Your task to perform on an android device: Open Chrome and go to the settings page Image 0: 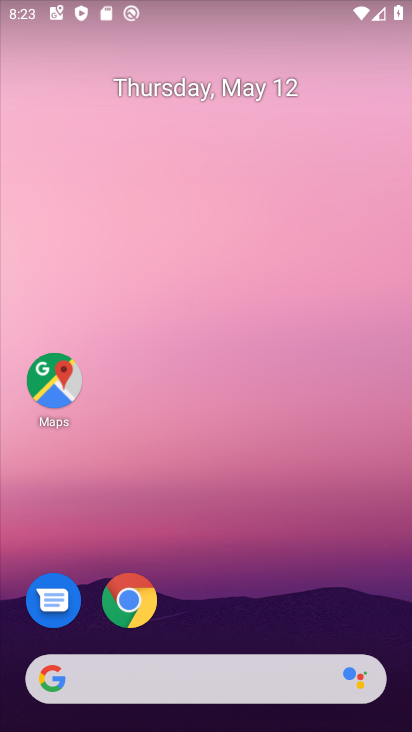
Step 0: click (238, 128)
Your task to perform on an android device: Open Chrome and go to the settings page Image 1: 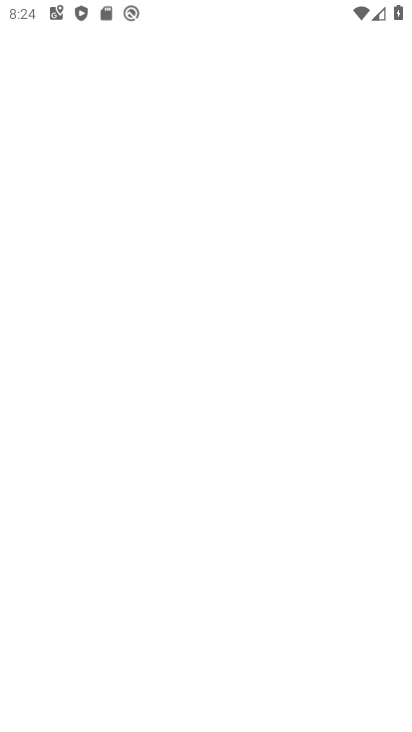
Step 1: press home button
Your task to perform on an android device: Open Chrome and go to the settings page Image 2: 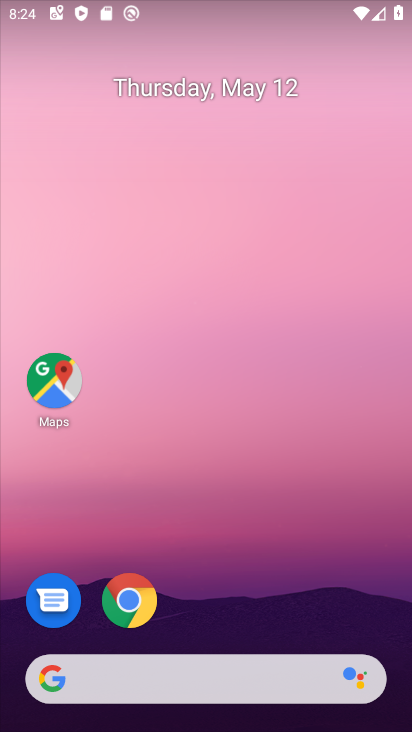
Step 2: drag from (238, 610) to (235, 157)
Your task to perform on an android device: Open Chrome and go to the settings page Image 3: 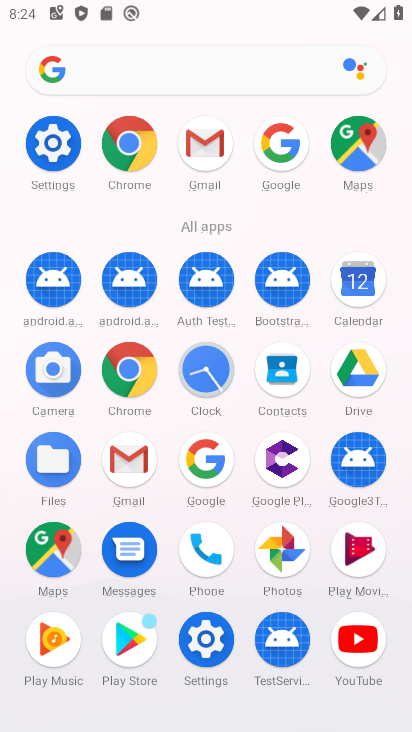
Step 3: click (117, 182)
Your task to perform on an android device: Open Chrome and go to the settings page Image 4: 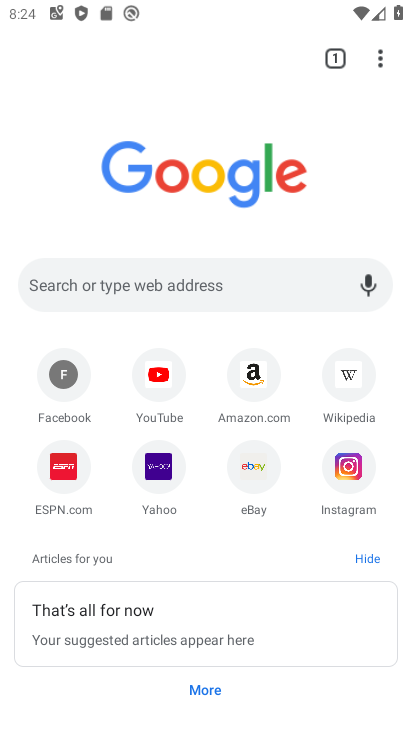
Step 4: click (383, 64)
Your task to perform on an android device: Open Chrome and go to the settings page Image 5: 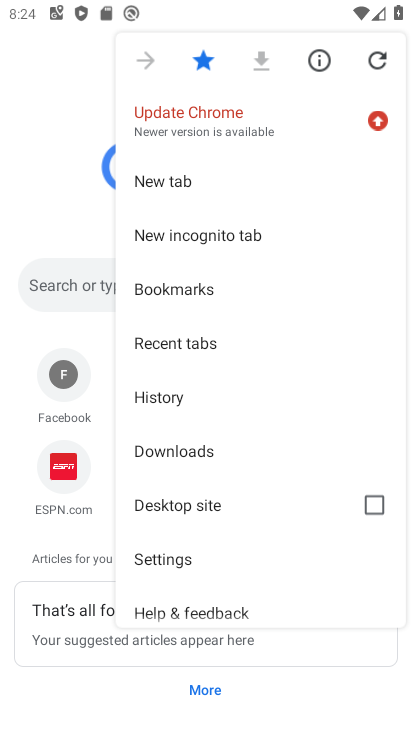
Step 5: click (209, 563)
Your task to perform on an android device: Open Chrome and go to the settings page Image 6: 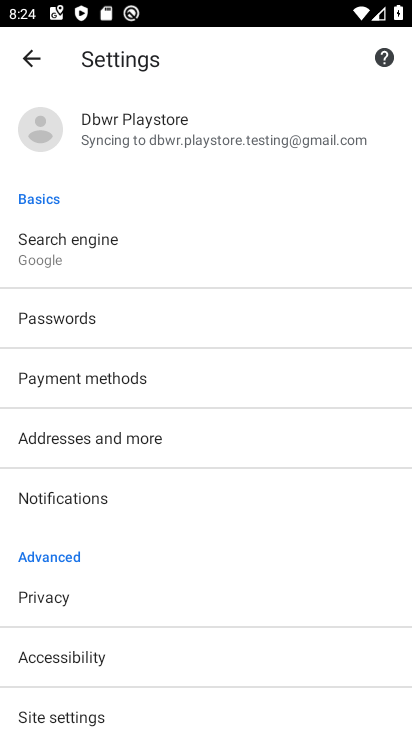
Step 6: task complete